Your task to perform on an android device: Open Google Chrome Image 0: 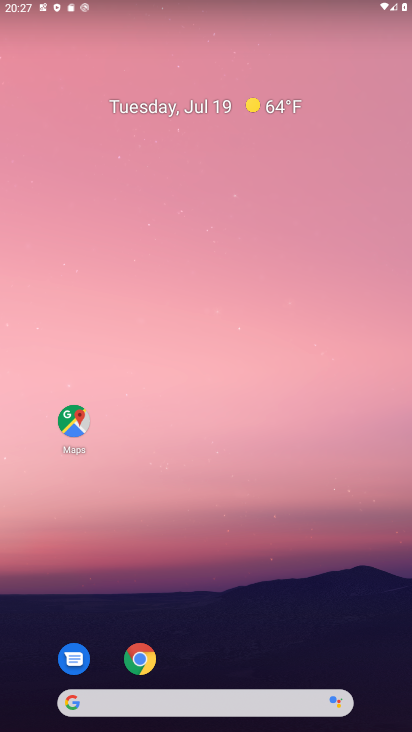
Step 0: click (147, 654)
Your task to perform on an android device: Open Google Chrome Image 1: 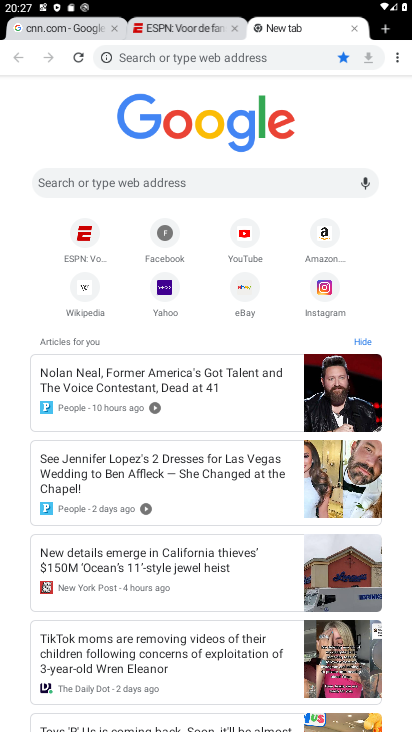
Step 1: task complete